Your task to perform on an android device: see tabs open on other devices in the chrome app Image 0: 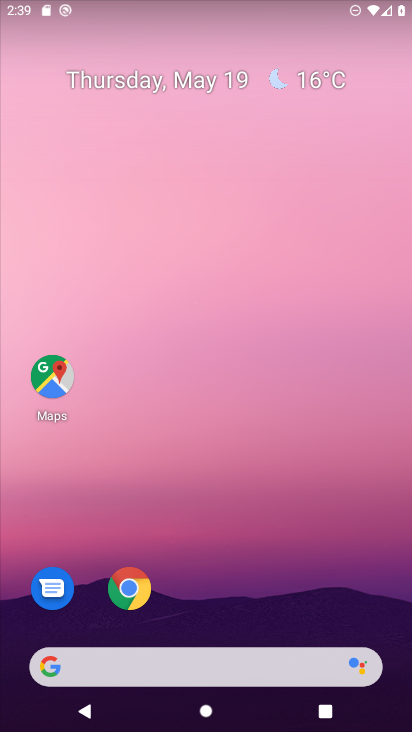
Step 0: click (128, 593)
Your task to perform on an android device: see tabs open on other devices in the chrome app Image 1: 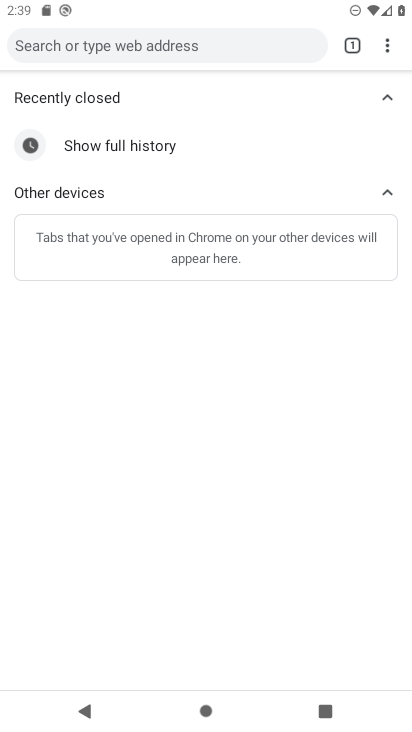
Step 1: click (386, 42)
Your task to perform on an android device: see tabs open on other devices in the chrome app Image 2: 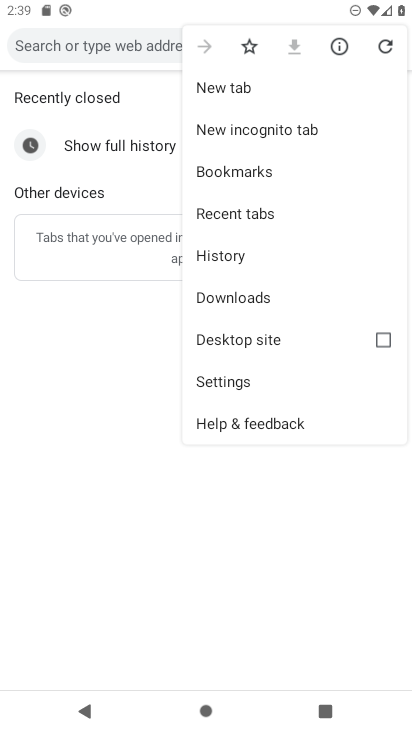
Step 2: click (241, 212)
Your task to perform on an android device: see tabs open on other devices in the chrome app Image 3: 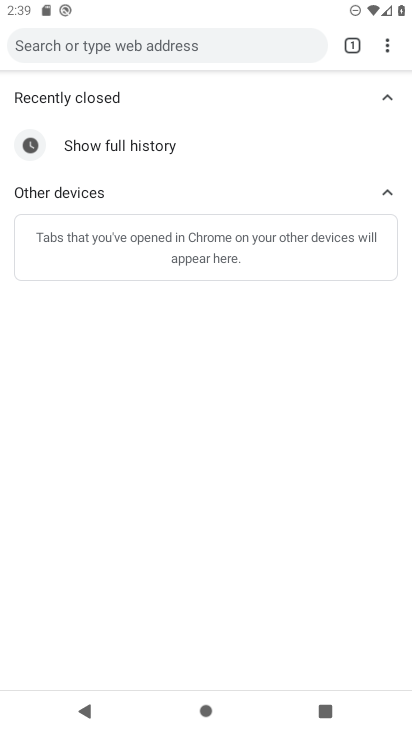
Step 3: task complete